Your task to perform on an android device: Check the news Image 0: 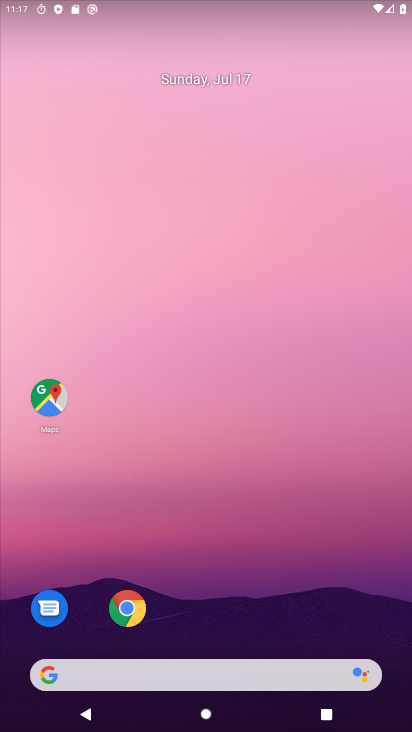
Step 0: click (183, 670)
Your task to perform on an android device: Check the news Image 1: 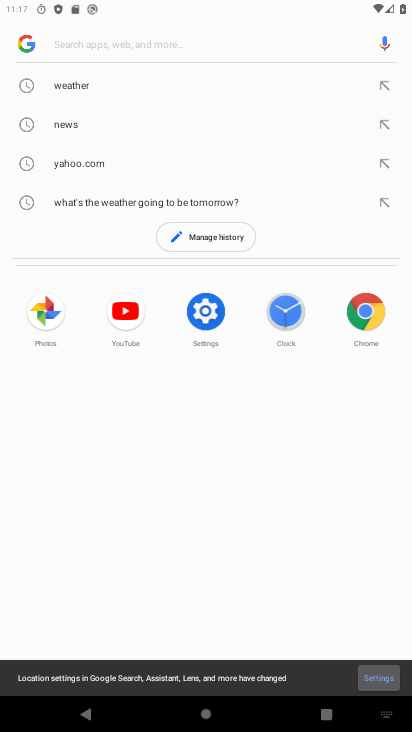
Step 1: click (183, 38)
Your task to perform on an android device: Check the news Image 2: 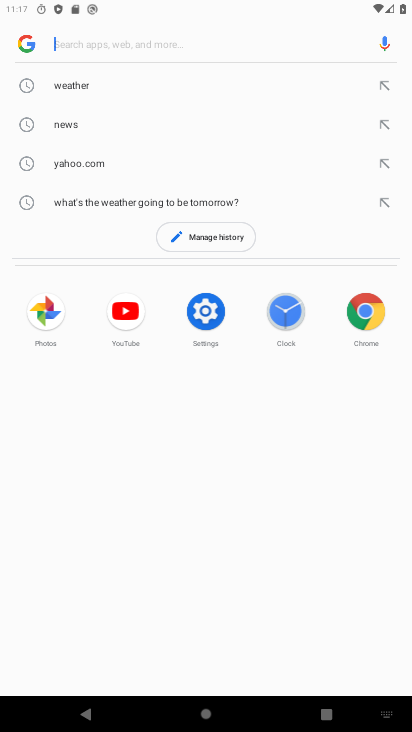
Step 2: type "news"
Your task to perform on an android device: Check the news Image 3: 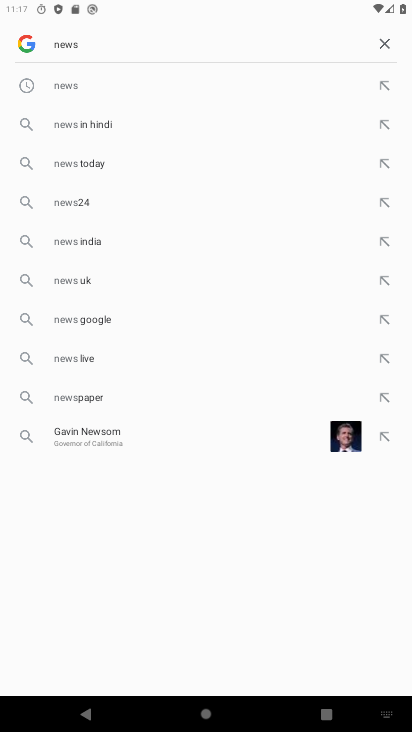
Step 3: click (70, 80)
Your task to perform on an android device: Check the news Image 4: 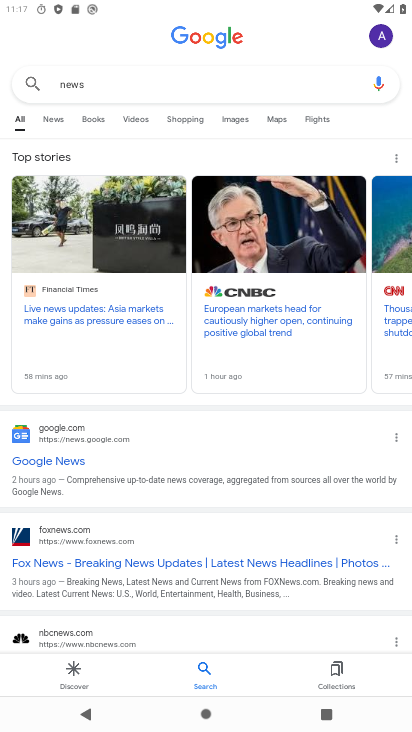
Step 4: click (58, 115)
Your task to perform on an android device: Check the news Image 5: 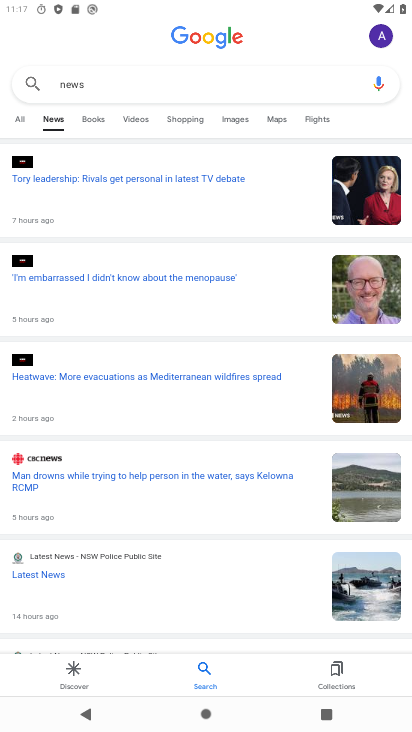
Step 5: task complete